Your task to perform on an android device: find snoozed emails in the gmail app Image 0: 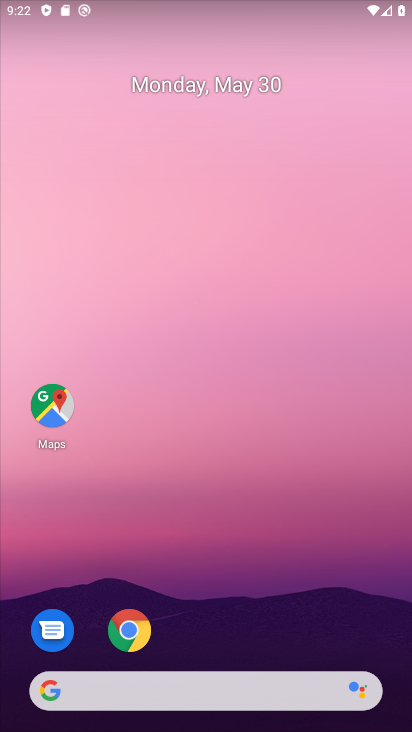
Step 0: drag from (243, 659) to (230, 187)
Your task to perform on an android device: find snoozed emails in the gmail app Image 1: 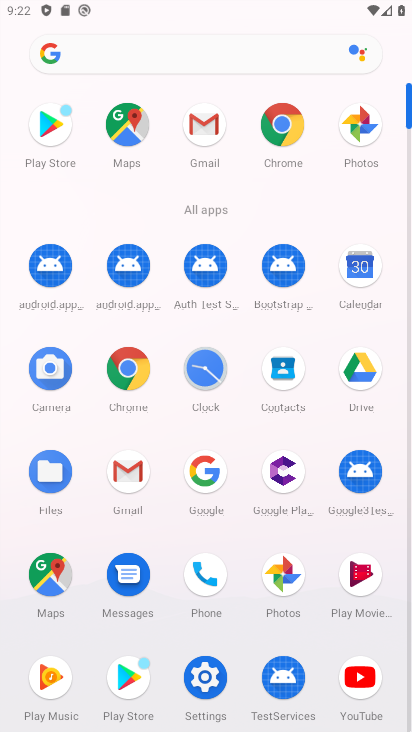
Step 1: click (205, 146)
Your task to perform on an android device: find snoozed emails in the gmail app Image 2: 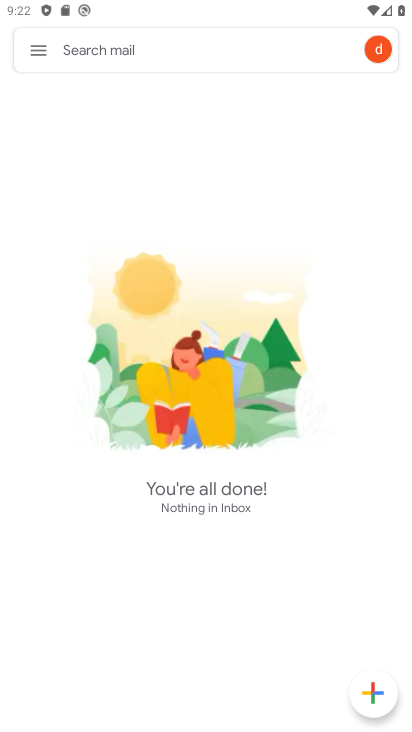
Step 2: task complete